Your task to perform on an android device: snooze an email in the gmail app Image 0: 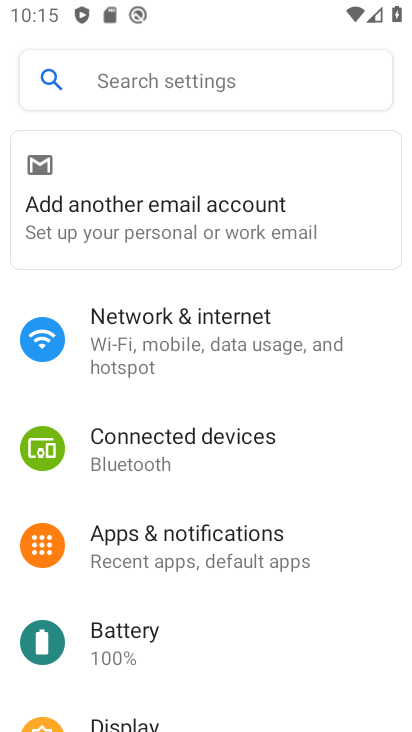
Step 0: press back button
Your task to perform on an android device: snooze an email in the gmail app Image 1: 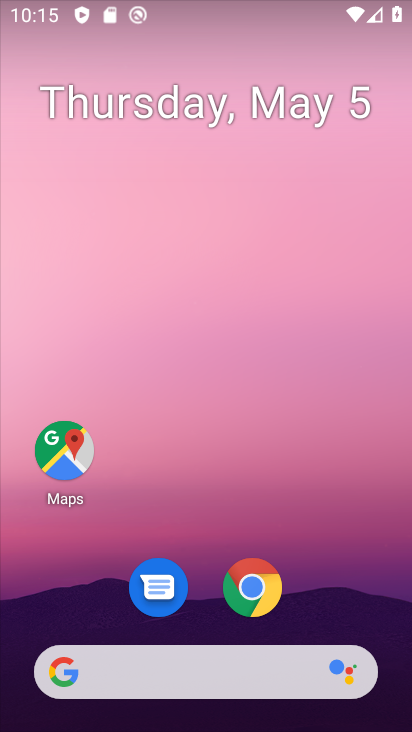
Step 1: drag from (361, 571) to (266, 7)
Your task to perform on an android device: snooze an email in the gmail app Image 2: 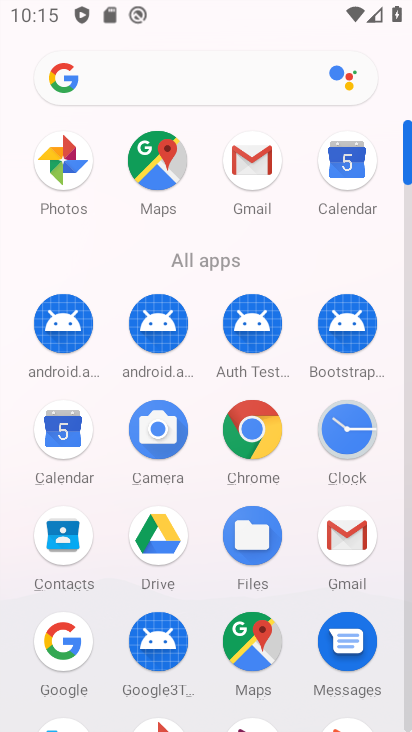
Step 2: click (253, 157)
Your task to perform on an android device: snooze an email in the gmail app Image 3: 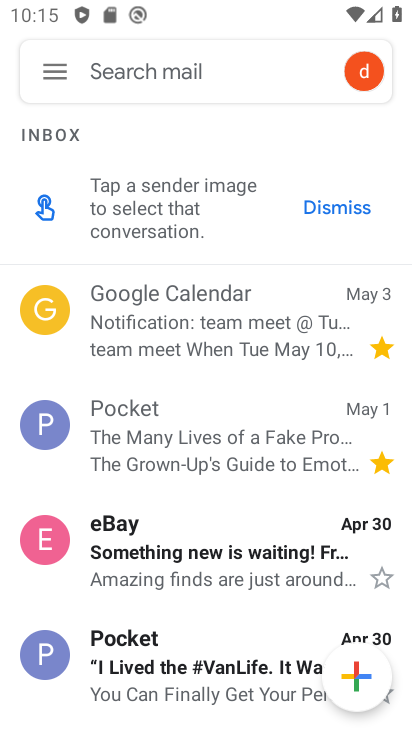
Step 3: click (218, 316)
Your task to perform on an android device: snooze an email in the gmail app Image 4: 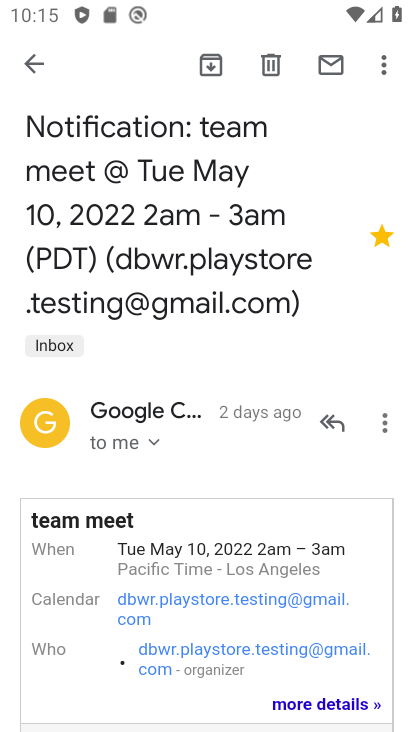
Step 4: click (382, 62)
Your task to perform on an android device: snooze an email in the gmail app Image 5: 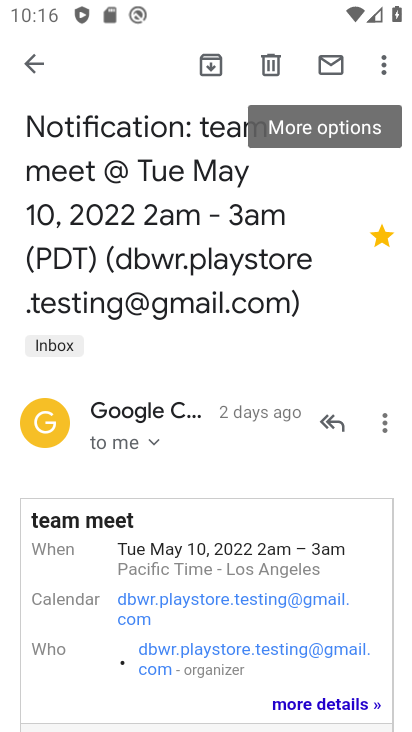
Step 5: click (382, 64)
Your task to perform on an android device: snooze an email in the gmail app Image 6: 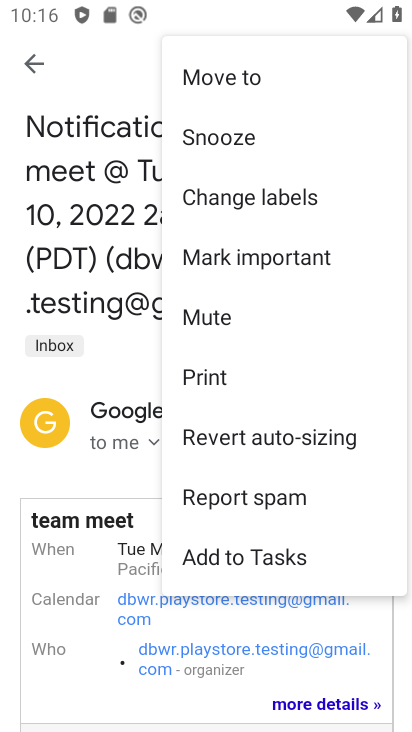
Step 6: click (270, 131)
Your task to perform on an android device: snooze an email in the gmail app Image 7: 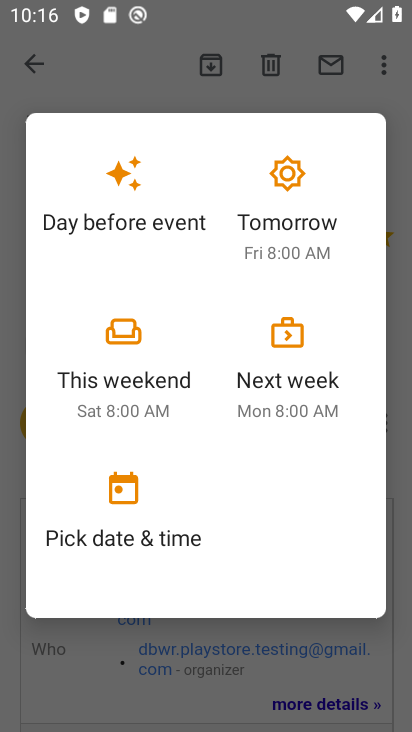
Step 7: click (120, 368)
Your task to perform on an android device: snooze an email in the gmail app Image 8: 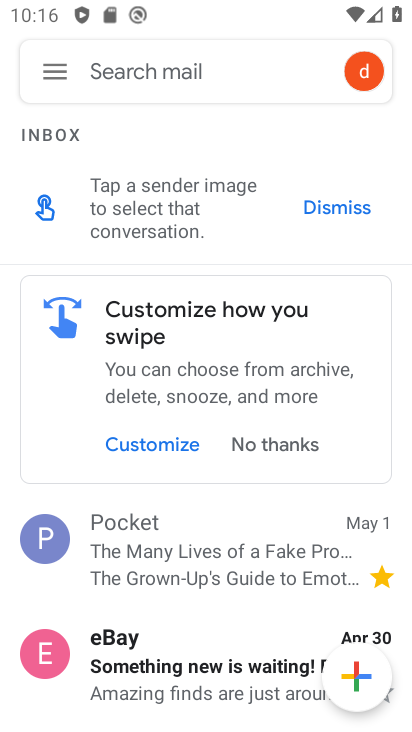
Step 8: task complete